Your task to perform on an android device: What is the recent news? Image 0: 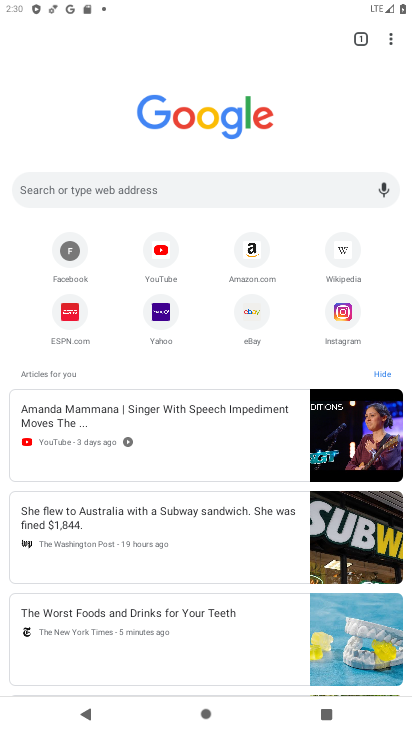
Step 0: click (81, 188)
Your task to perform on an android device: What is the recent news? Image 1: 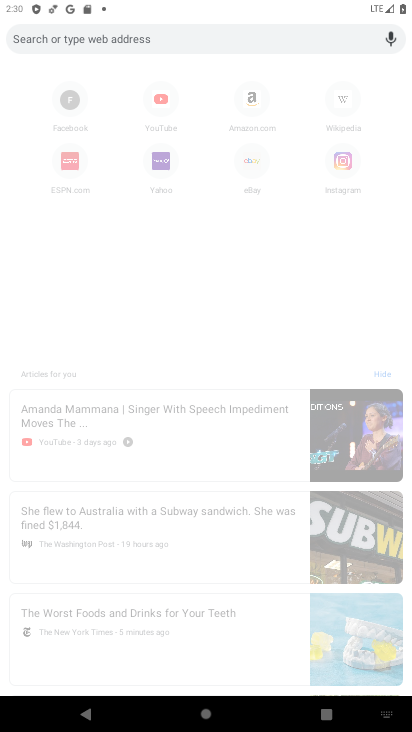
Step 1: type "recent news"
Your task to perform on an android device: What is the recent news? Image 2: 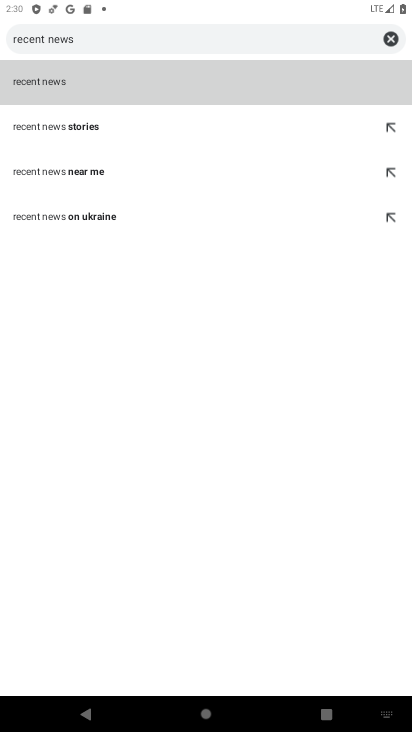
Step 2: click (78, 83)
Your task to perform on an android device: What is the recent news? Image 3: 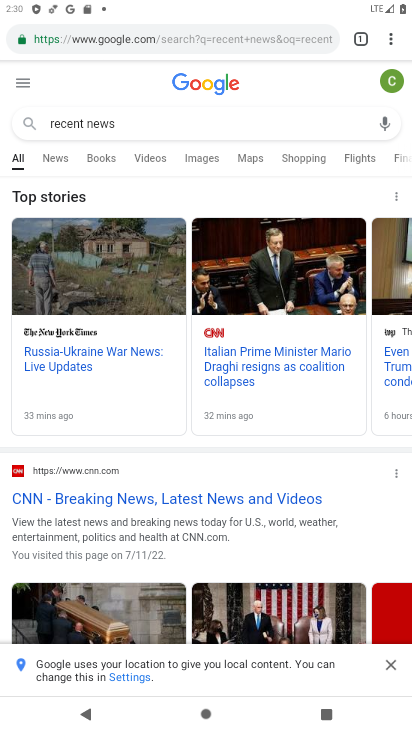
Step 3: task complete